Your task to perform on an android device: toggle wifi Image 0: 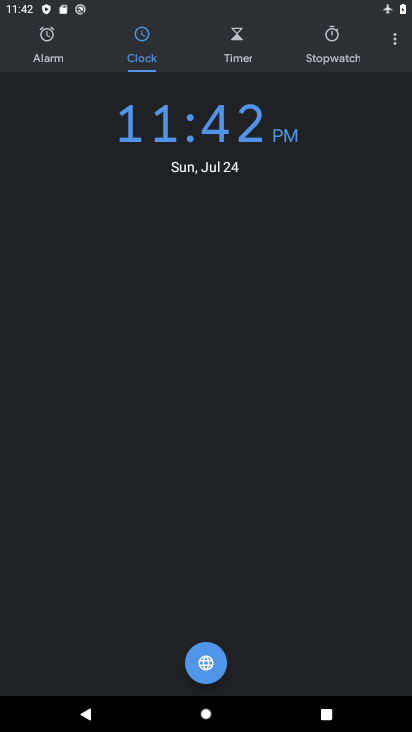
Step 0: press home button
Your task to perform on an android device: toggle wifi Image 1: 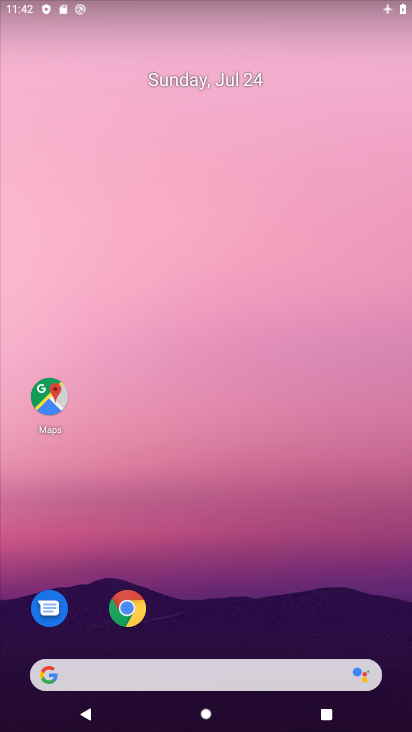
Step 1: drag from (271, 670) to (297, 325)
Your task to perform on an android device: toggle wifi Image 2: 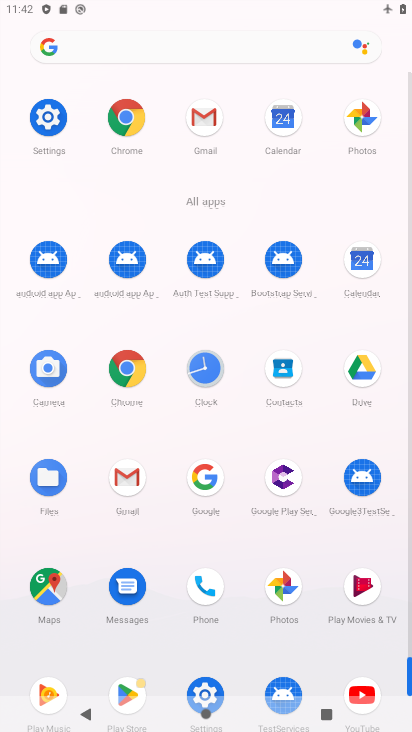
Step 2: click (49, 132)
Your task to perform on an android device: toggle wifi Image 3: 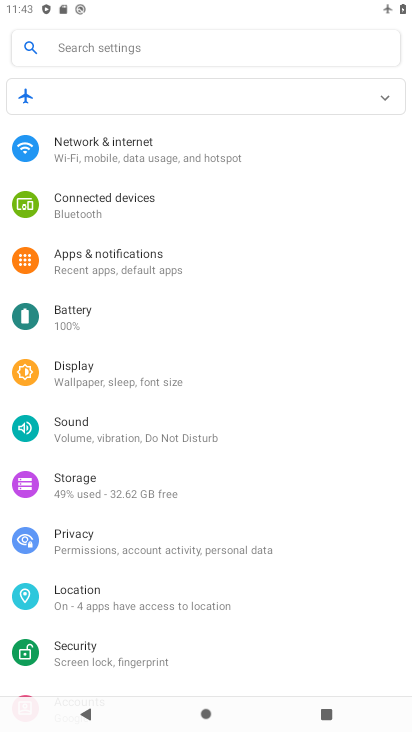
Step 3: click (186, 148)
Your task to perform on an android device: toggle wifi Image 4: 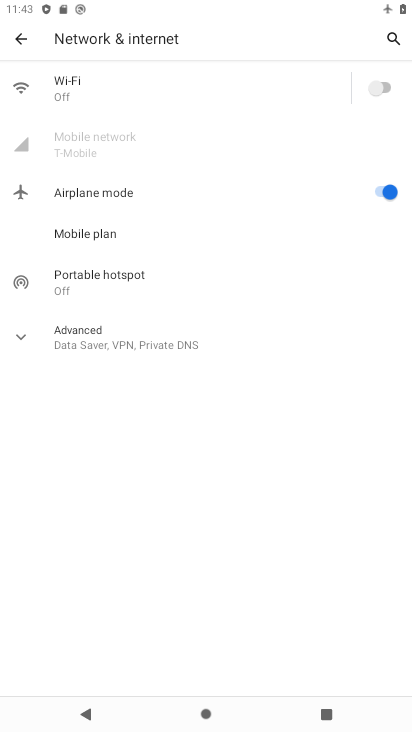
Step 4: click (156, 88)
Your task to perform on an android device: toggle wifi Image 5: 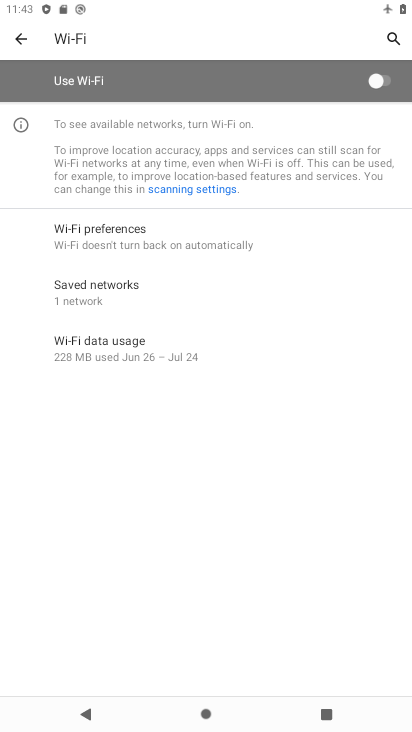
Step 5: click (364, 90)
Your task to perform on an android device: toggle wifi Image 6: 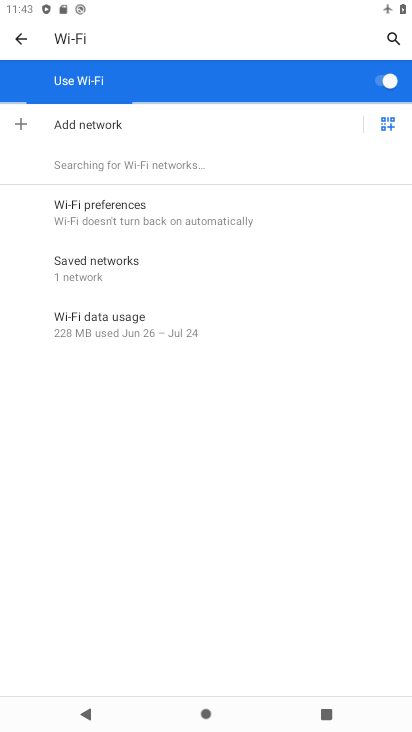
Step 6: task complete